Your task to perform on an android device: Go to privacy settings Image 0: 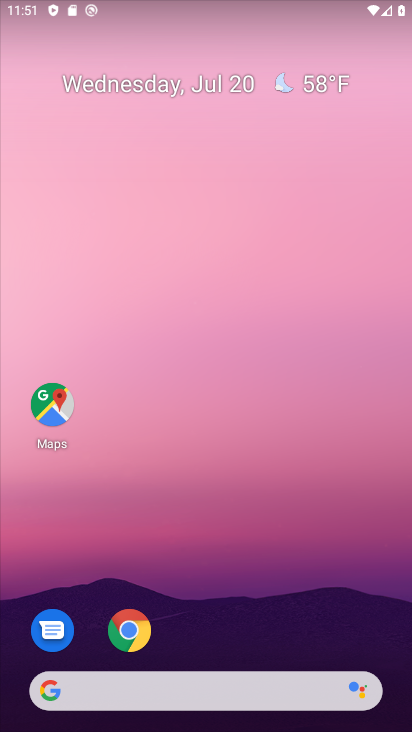
Step 0: drag from (237, 686) to (253, 82)
Your task to perform on an android device: Go to privacy settings Image 1: 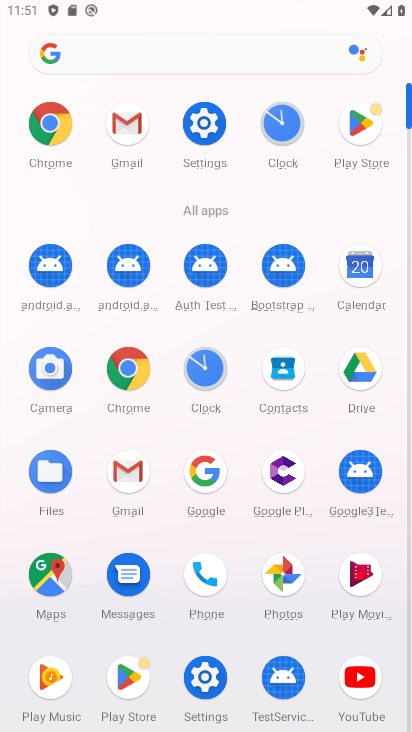
Step 1: click (202, 672)
Your task to perform on an android device: Go to privacy settings Image 2: 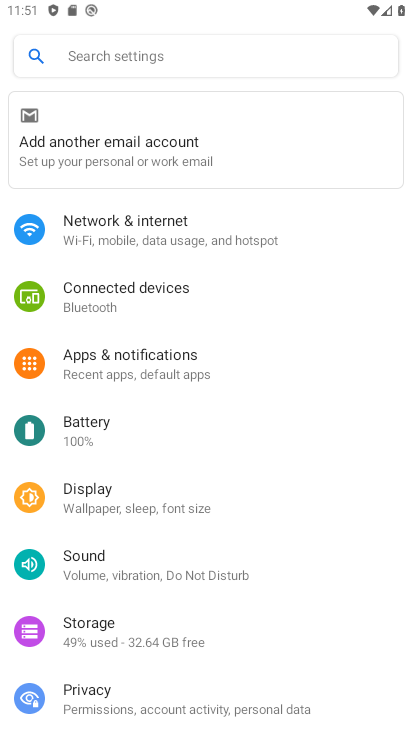
Step 2: click (103, 688)
Your task to perform on an android device: Go to privacy settings Image 3: 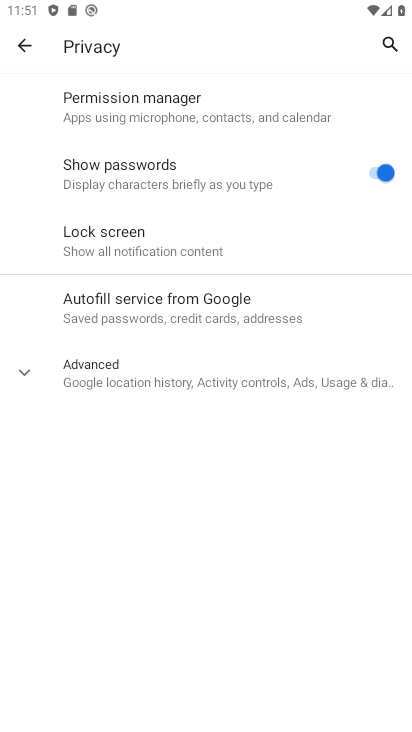
Step 3: task complete